Your task to perform on an android device: Show me the alarms in the clock app Image 0: 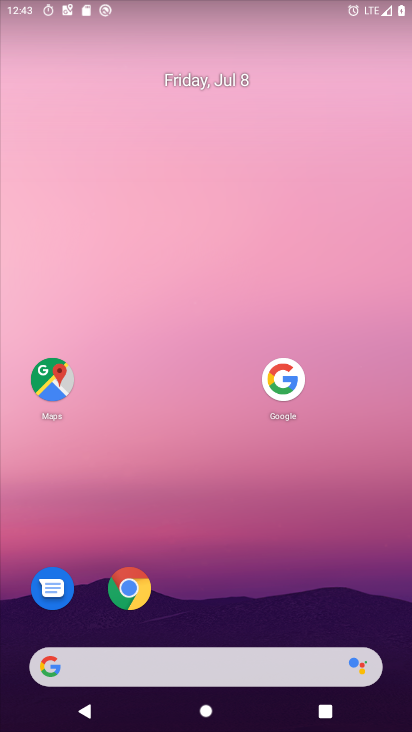
Step 0: drag from (215, 667) to (363, 117)
Your task to perform on an android device: Show me the alarms in the clock app Image 1: 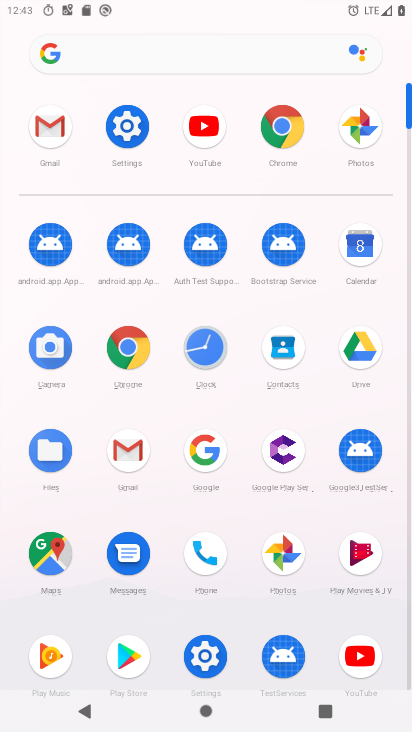
Step 1: click (198, 346)
Your task to perform on an android device: Show me the alarms in the clock app Image 2: 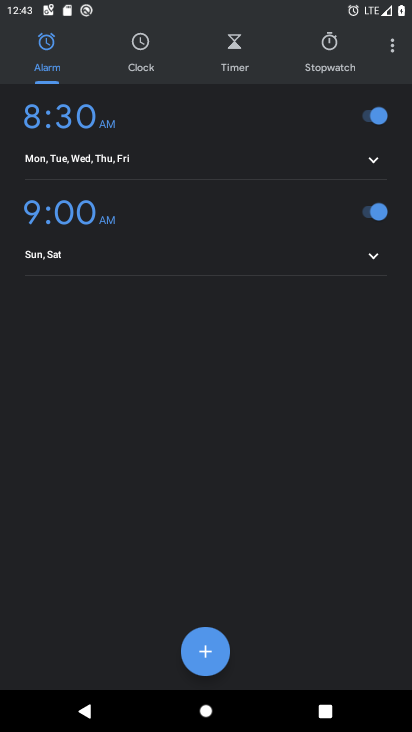
Step 2: task complete